Your task to perform on an android device: Open settings Image 0: 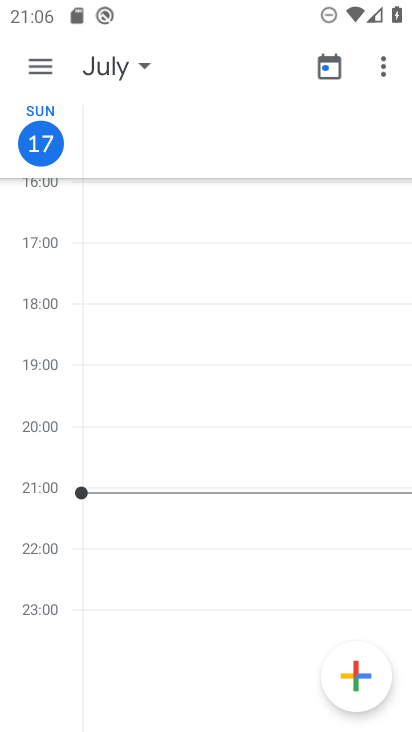
Step 0: press home button
Your task to perform on an android device: Open settings Image 1: 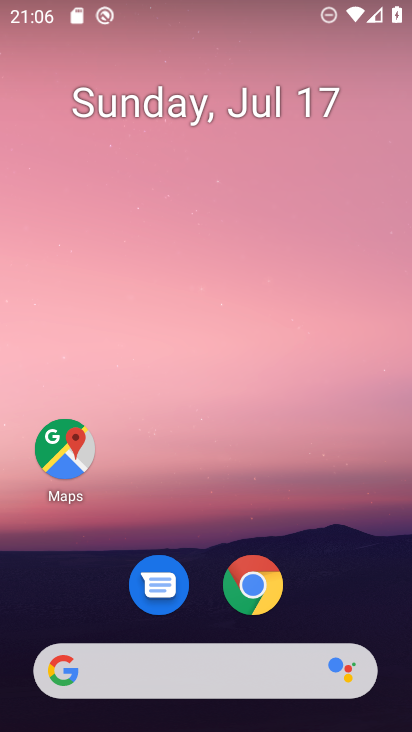
Step 1: drag from (190, 675) to (315, 63)
Your task to perform on an android device: Open settings Image 2: 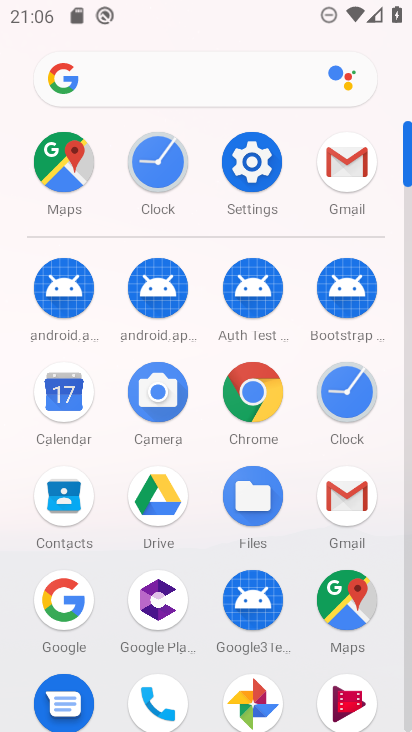
Step 2: click (261, 154)
Your task to perform on an android device: Open settings Image 3: 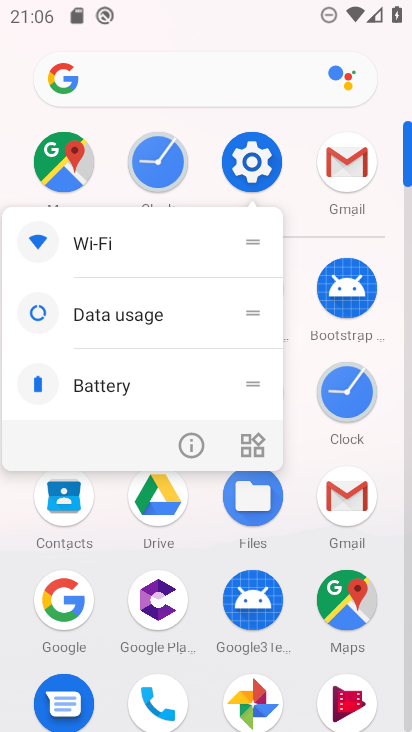
Step 3: click (253, 158)
Your task to perform on an android device: Open settings Image 4: 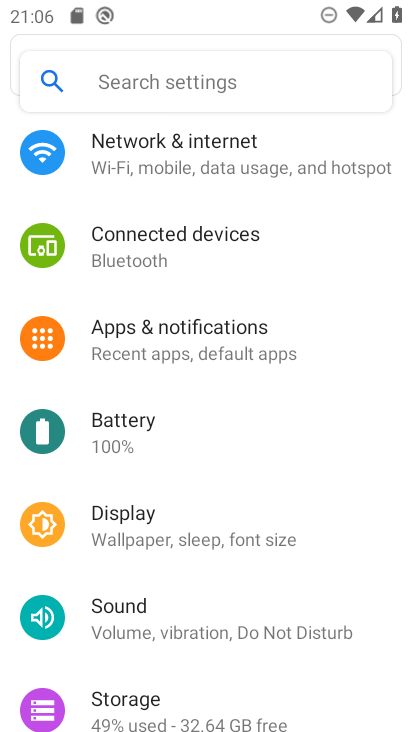
Step 4: task complete